Your task to perform on an android device: Open Google Chrome and click the shortcut for Amazon.com Image 0: 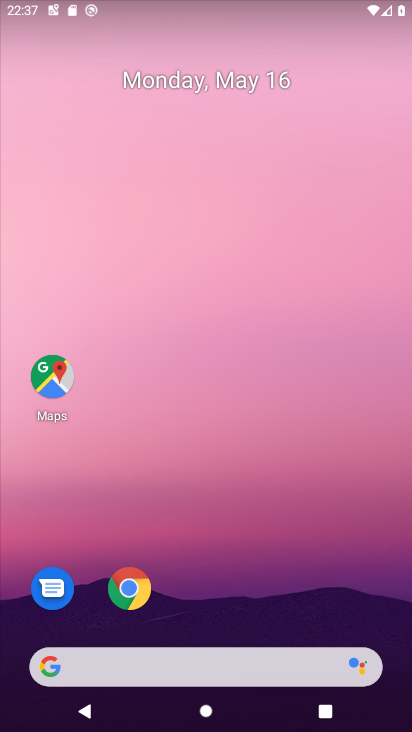
Step 0: click (128, 587)
Your task to perform on an android device: Open Google Chrome and click the shortcut for Amazon.com Image 1: 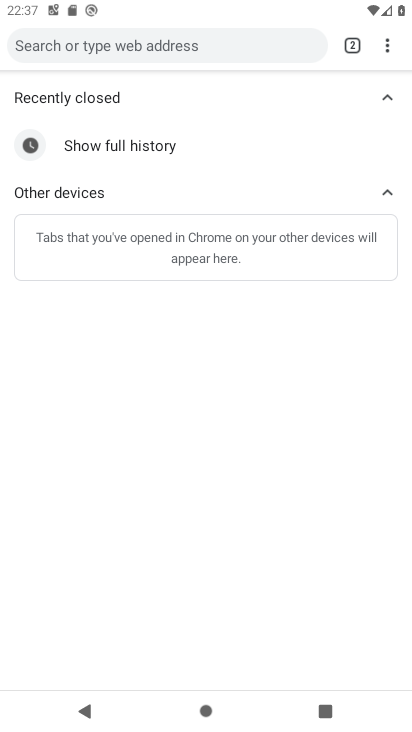
Step 1: click (388, 42)
Your task to perform on an android device: Open Google Chrome and click the shortcut for Amazon.com Image 2: 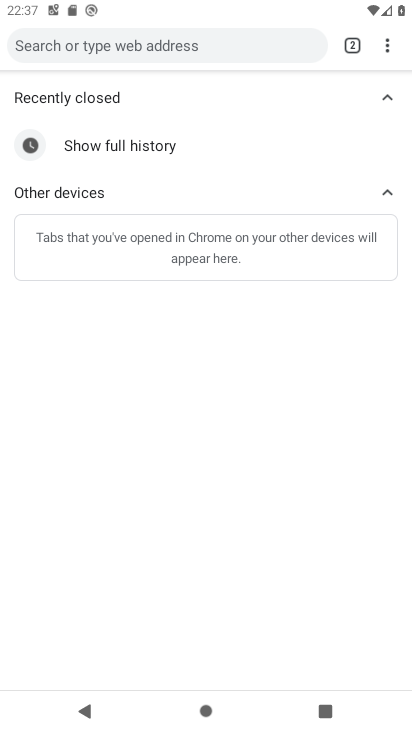
Step 2: click (347, 44)
Your task to perform on an android device: Open Google Chrome and click the shortcut for Amazon.com Image 3: 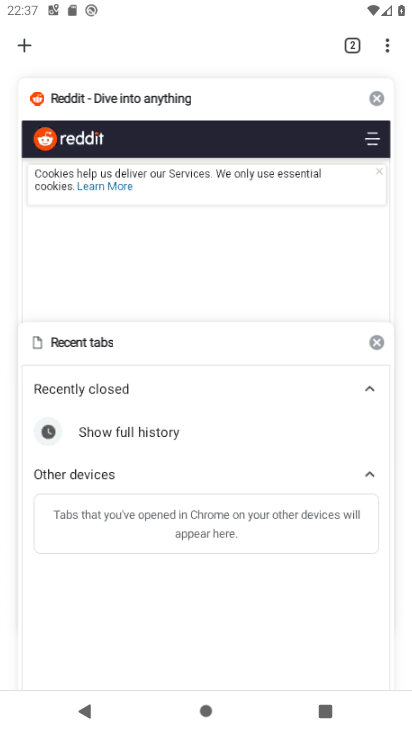
Step 3: click (376, 96)
Your task to perform on an android device: Open Google Chrome and click the shortcut for Amazon.com Image 4: 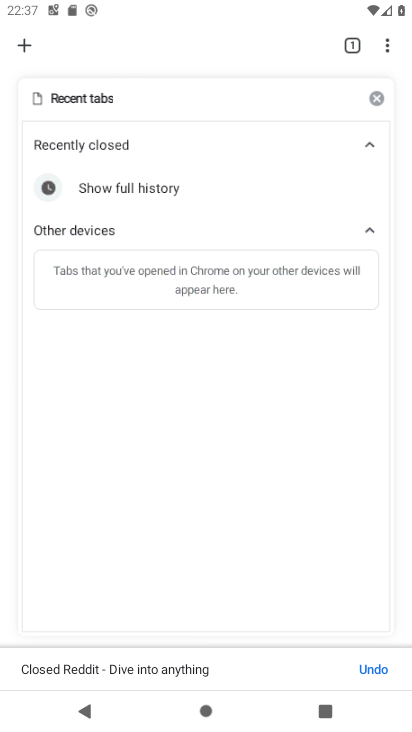
Step 4: click (376, 96)
Your task to perform on an android device: Open Google Chrome and click the shortcut for Amazon.com Image 5: 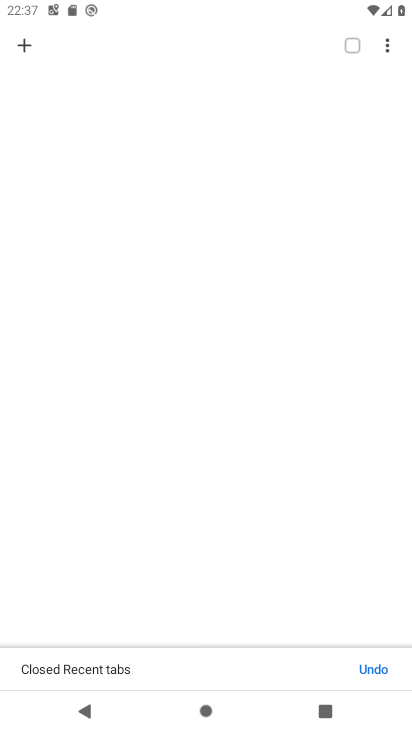
Step 5: click (29, 44)
Your task to perform on an android device: Open Google Chrome and click the shortcut for Amazon.com Image 6: 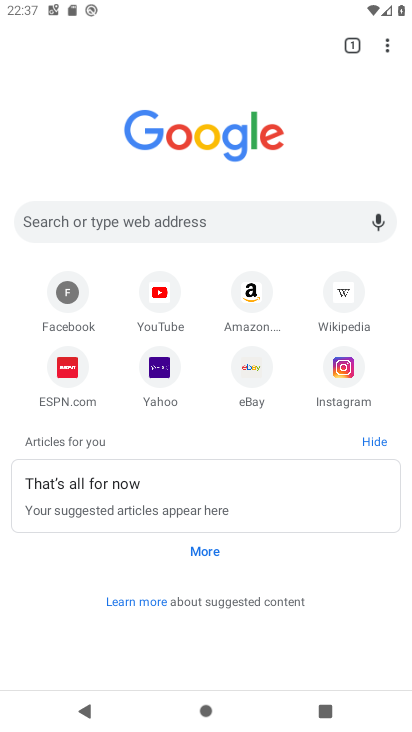
Step 6: click (249, 284)
Your task to perform on an android device: Open Google Chrome and click the shortcut for Amazon.com Image 7: 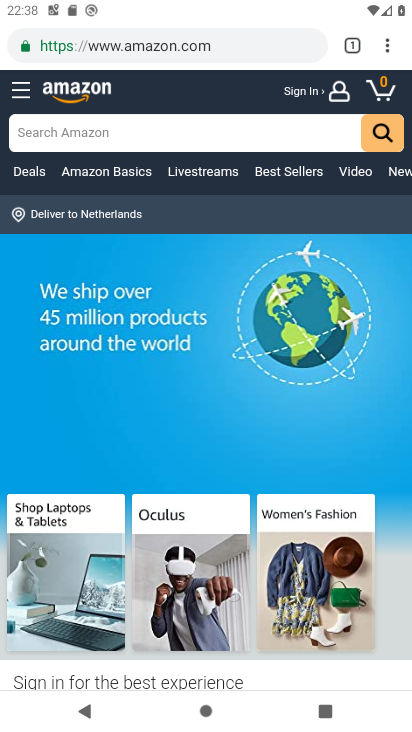
Step 7: task complete